Your task to perform on an android device: turn notification dots off Image 0: 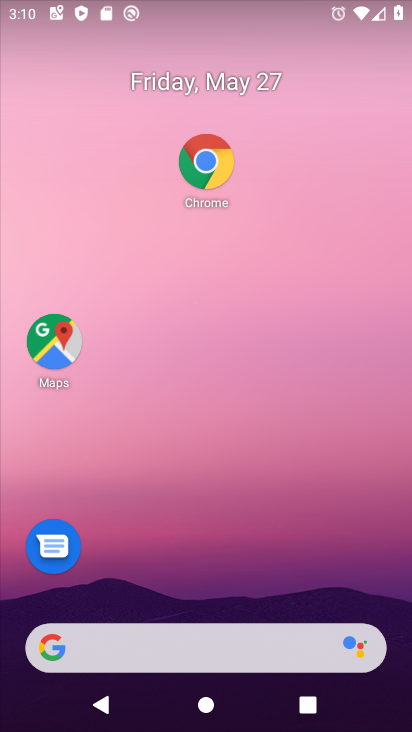
Step 0: drag from (168, 456) to (226, 169)
Your task to perform on an android device: turn notification dots off Image 1: 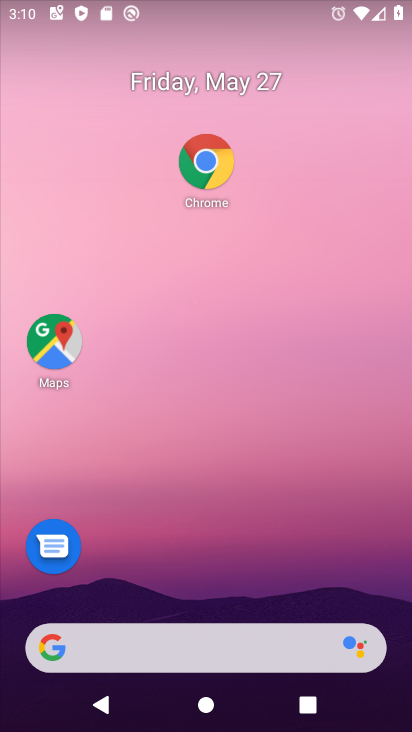
Step 1: drag from (131, 591) to (180, 237)
Your task to perform on an android device: turn notification dots off Image 2: 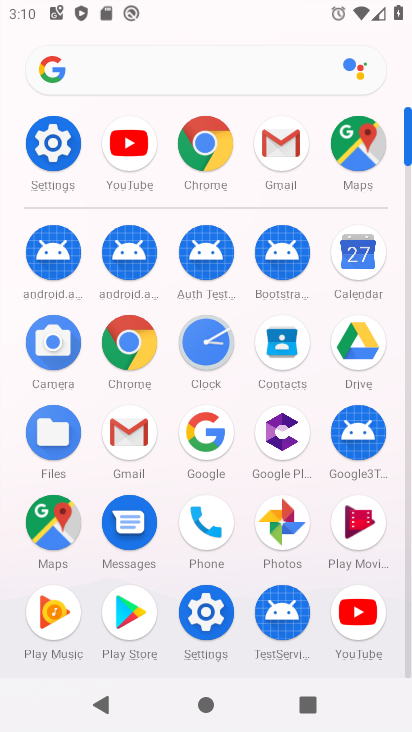
Step 2: click (51, 146)
Your task to perform on an android device: turn notification dots off Image 3: 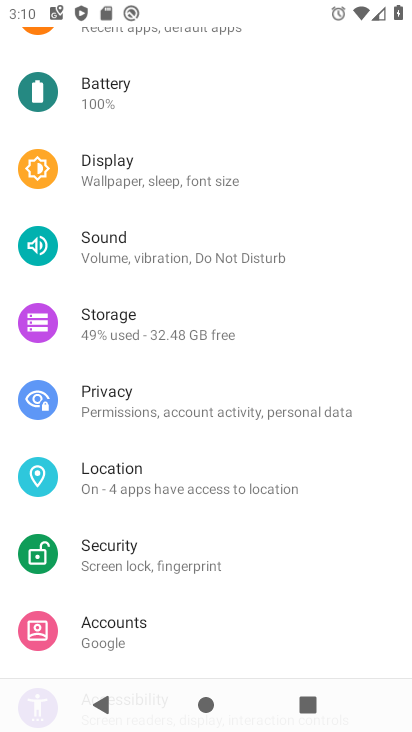
Step 3: drag from (168, 140) to (226, 557)
Your task to perform on an android device: turn notification dots off Image 4: 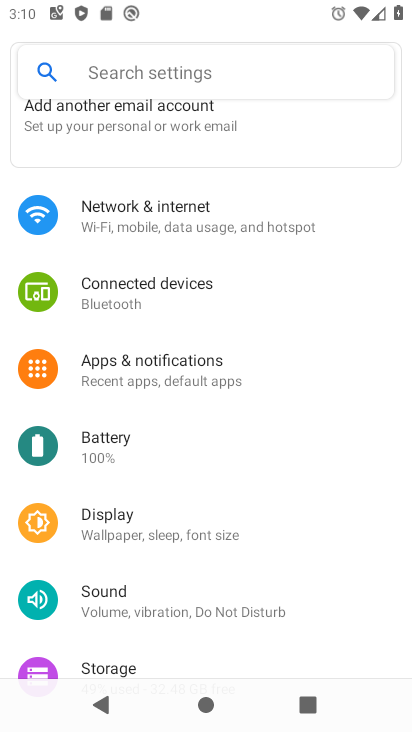
Step 4: click (179, 381)
Your task to perform on an android device: turn notification dots off Image 5: 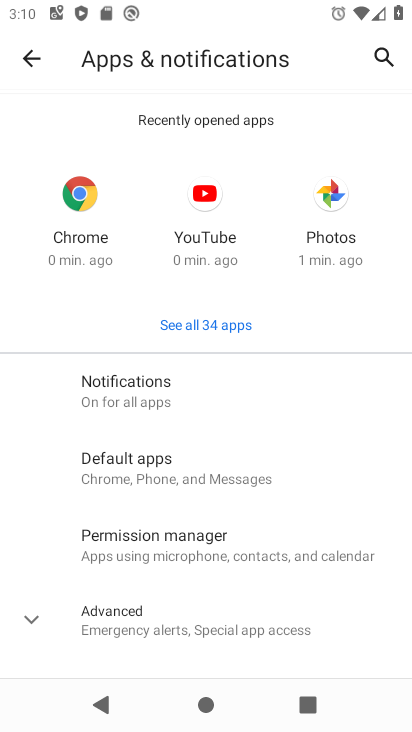
Step 5: click (140, 394)
Your task to perform on an android device: turn notification dots off Image 6: 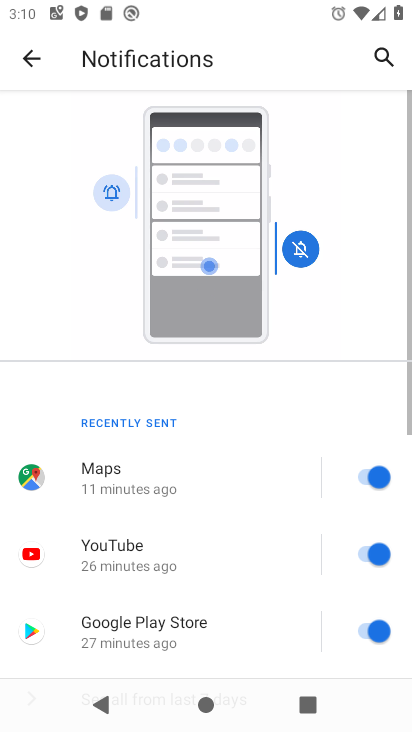
Step 6: drag from (164, 532) to (344, 31)
Your task to perform on an android device: turn notification dots off Image 7: 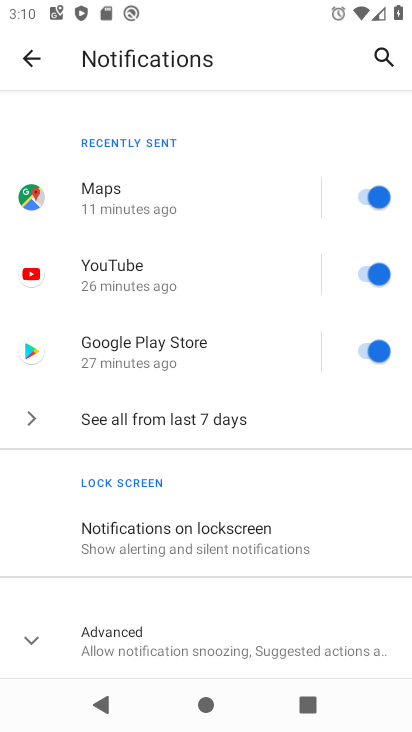
Step 7: click (121, 638)
Your task to perform on an android device: turn notification dots off Image 8: 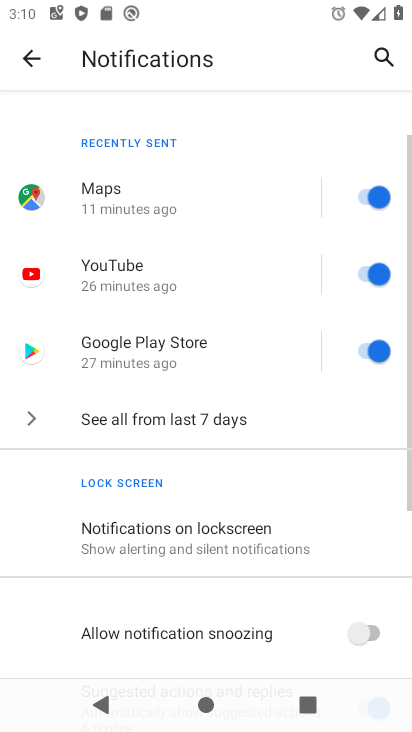
Step 8: task complete